Your task to perform on an android device: open the mobile data screen to see how much data has been used Image 0: 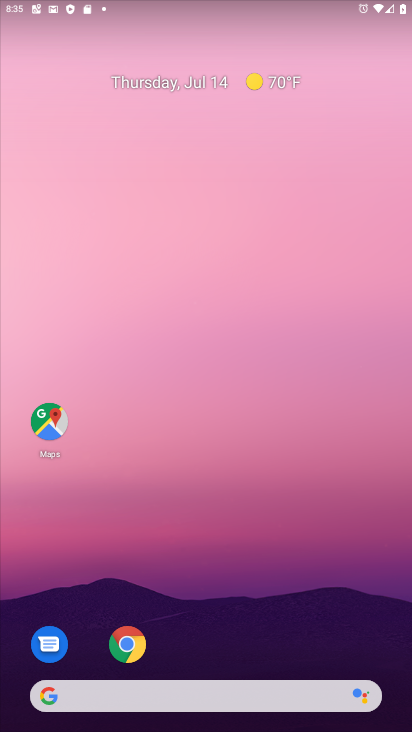
Step 0: drag from (229, 657) to (299, 247)
Your task to perform on an android device: open the mobile data screen to see how much data has been used Image 1: 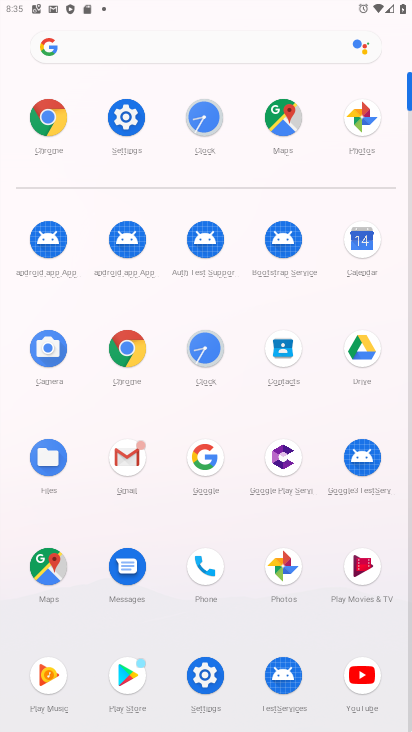
Step 1: click (125, 109)
Your task to perform on an android device: open the mobile data screen to see how much data has been used Image 2: 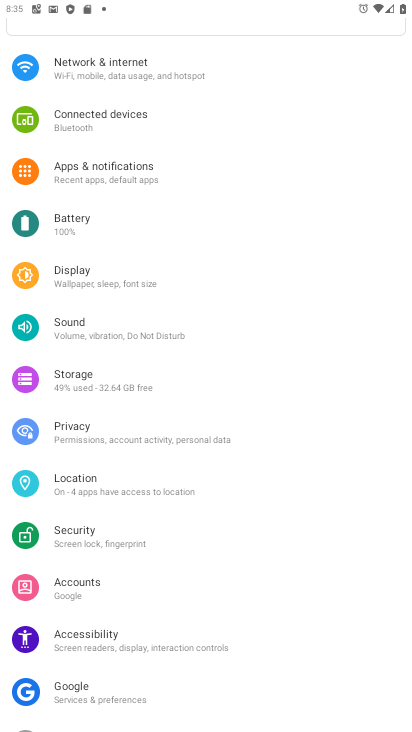
Step 2: click (108, 65)
Your task to perform on an android device: open the mobile data screen to see how much data has been used Image 3: 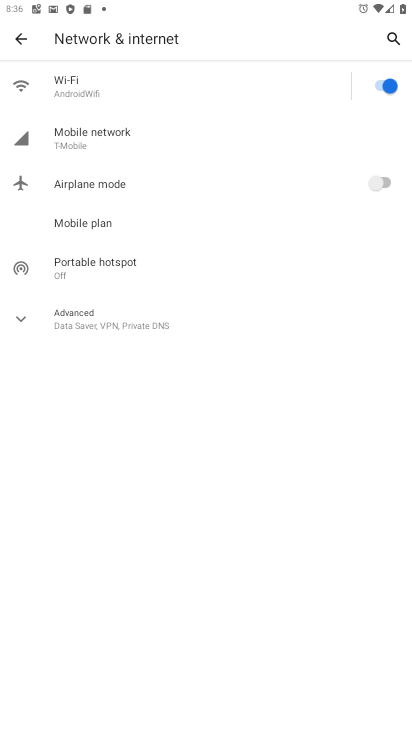
Step 3: click (96, 137)
Your task to perform on an android device: open the mobile data screen to see how much data has been used Image 4: 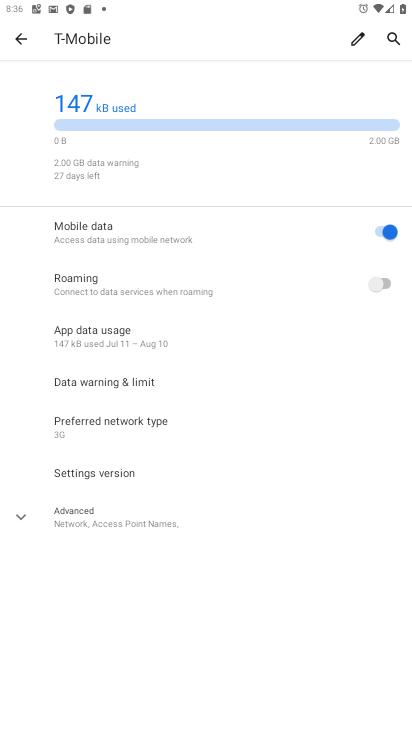
Step 4: task complete